Your task to perform on an android device: Go to eBay Image 0: 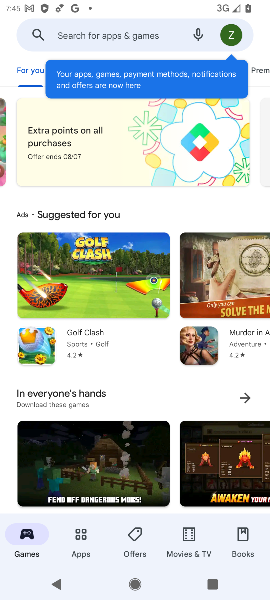
Step 0: press home button
Your task to perform on an android device: Go to eBay Image 1: 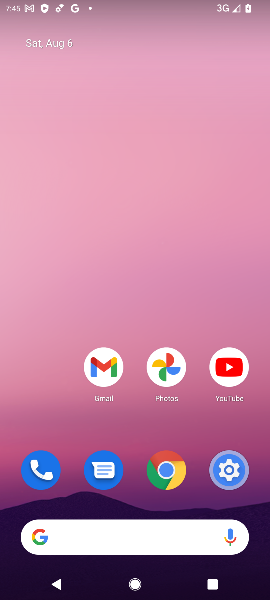
Step 1: drag from (107, 501) to (100, 158)
Your task to perform on an android device: Go to eBay Image 2: 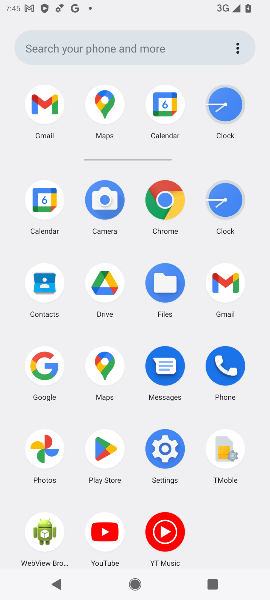
Step 2: click (166, 212)
Your task to perform on an android device: Go to eBay Image 3: 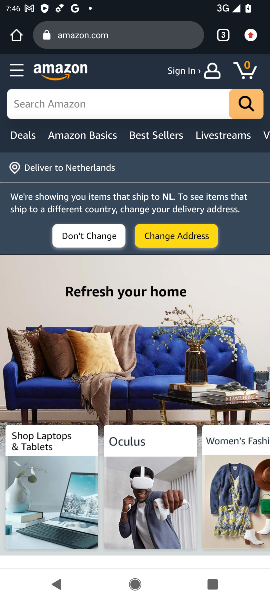
Step 3: drag from (224, 36) to (223, 166)
Your task to perform on an android device: Go to eBay Image 4: 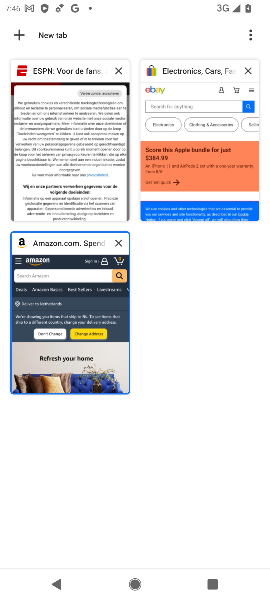
Step 4: click (170, 130)
Your task to perform on an android device: Go to eBay Image 5: 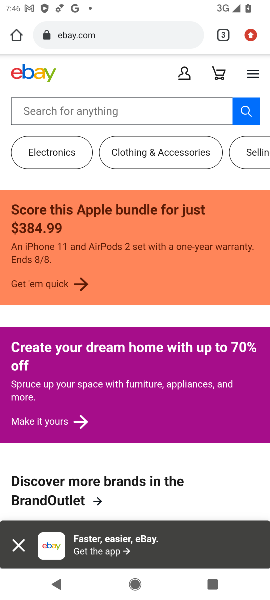
Step 5: task complete